Your task to perform on an android device: Turn off the flashlight Image 0: 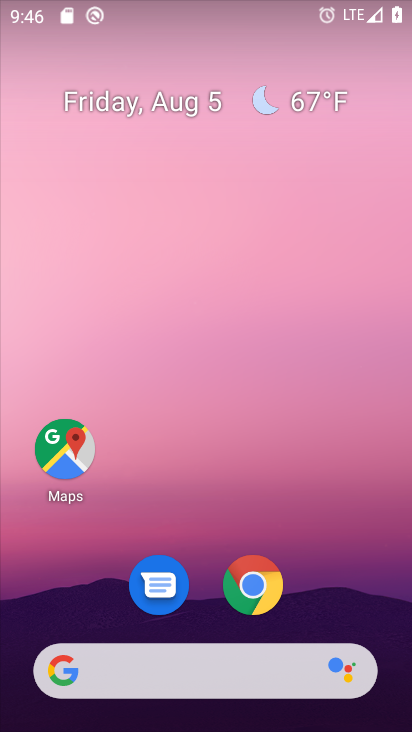
Step 0: drag from (237, 465) to (280, 14)
Your task to perform on an android device: Turn off the flashlight Image 1: 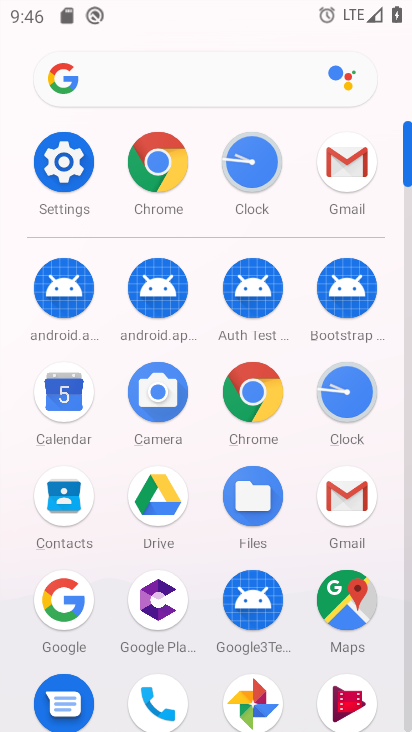
Step 1: click (70, 164)
Your task to perform on an android device: Turn off the flashlight Image 2: 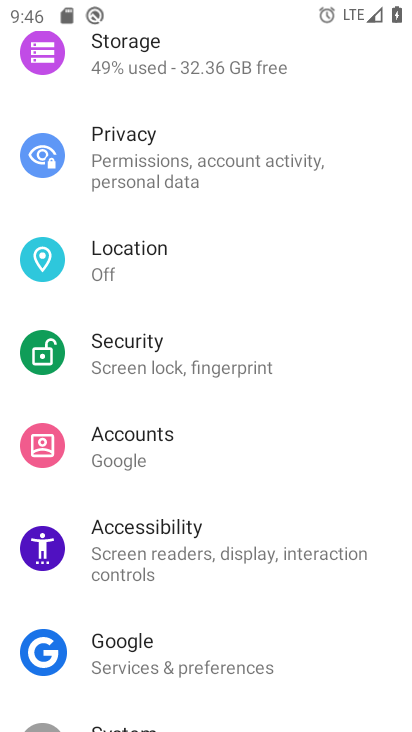
Step 2: drag from (238, 162) to (257, 649)
Your task to perform on an android device: Turn off the flashlight Image 3: 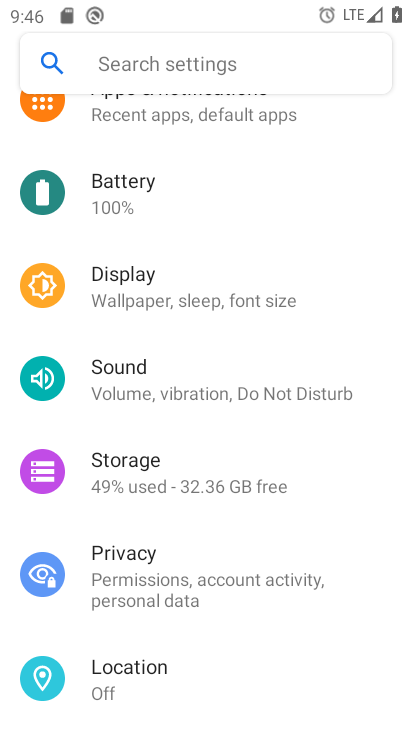
Step 3: drag from (236, 257) to (267, 605)
Your task to perform on an android device: Turn off the flashlight Image 4: 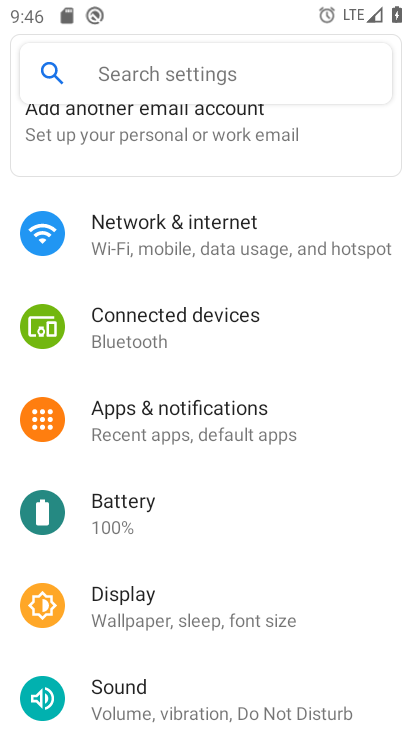
Step 4: drag from (234, 367) to (245, 551)
Your task to perform on an android device: Turn off the flashlight Image 5: 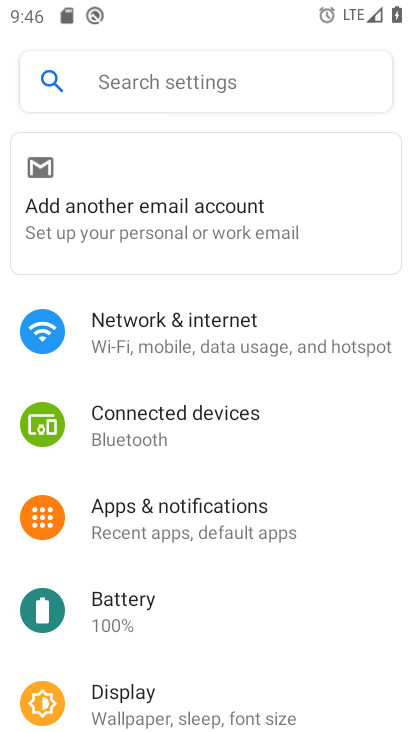
Step 5: click (306, 74)
Your task to perform on an android device: Turn off the flashlight Image 6: 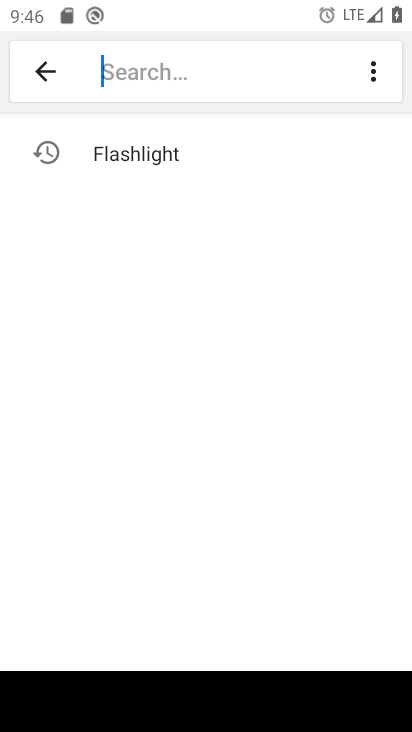
Step 6: click (171, 154)
Your task to perform on an android device: Turn off the flashlight Image 7: 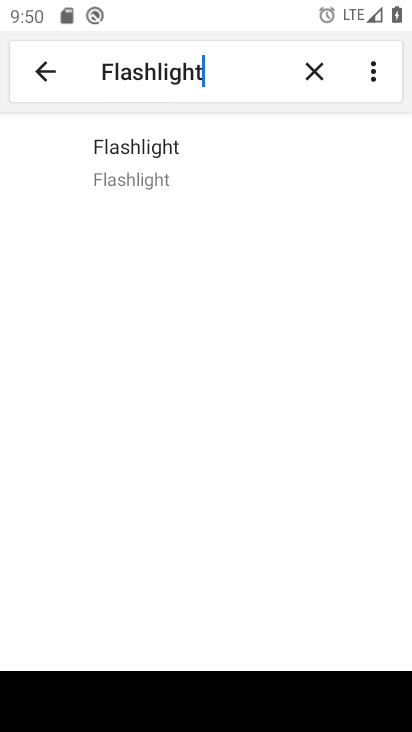
Step 7: task complete